Your task to perform on an android device: Open calendar and show me the fourth week of next month Image 0: 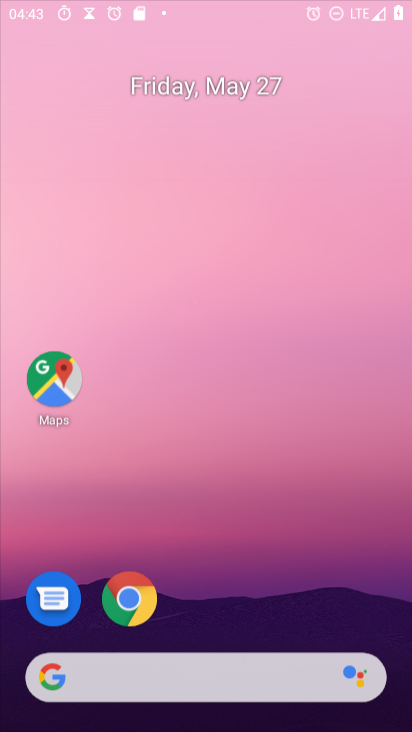
Step 0: drag from (183, 318) to (183, 221)
Your task to perform on an android device: Open calendar and show me the fourth week of next month Image 1: 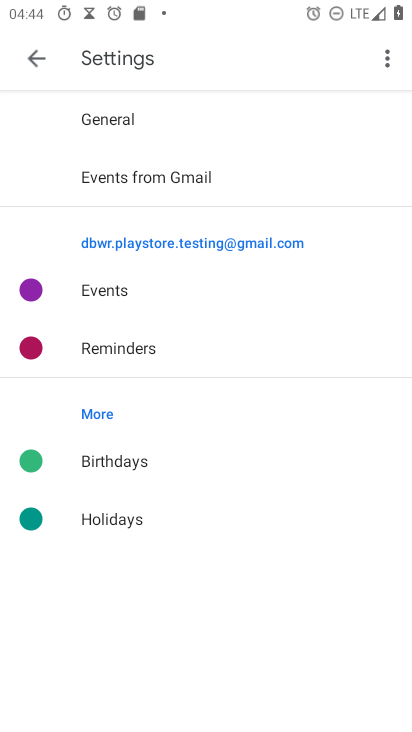
Step 1: press home button
Your task to perform on an android device: Open calendar and show me the fourth week of next month Image 2: 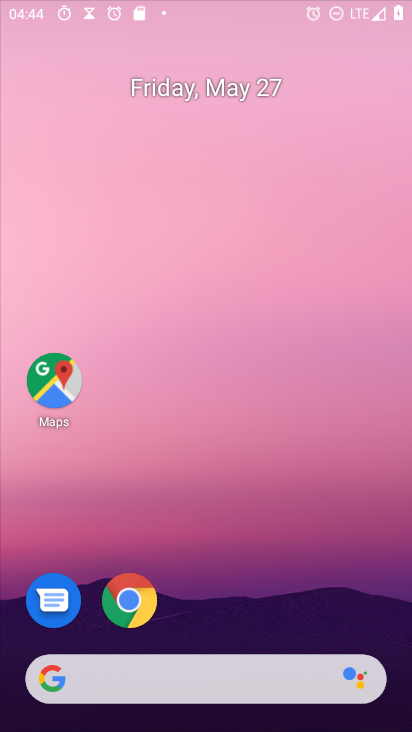
Step 2: drag from (218, 704) to (219, 167)
Your task to perform on an android device: Open calendar and show me the fourth week of next month Image 3: 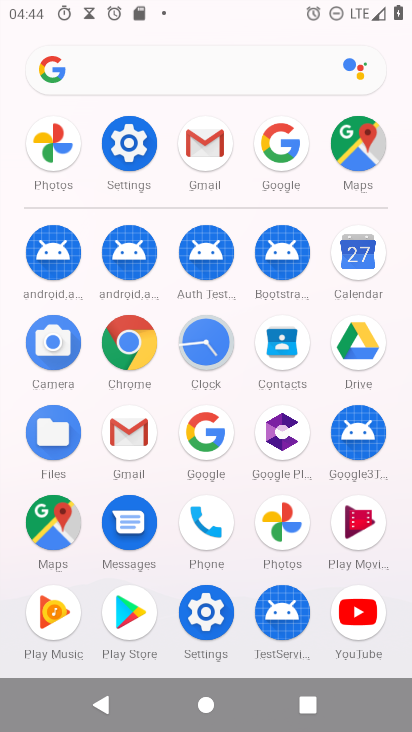
Step 3: click (132, 623)
Your task to perform on an android device: Open calendar and show me the fourth week of next month Image 4: 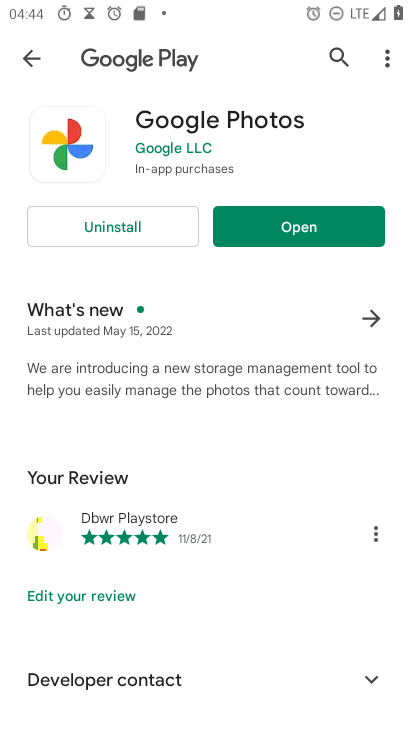
Step 4: click (29, 57)
Your task to perform on an android device: Open calendar and show me the fourth week of next month Image 5: 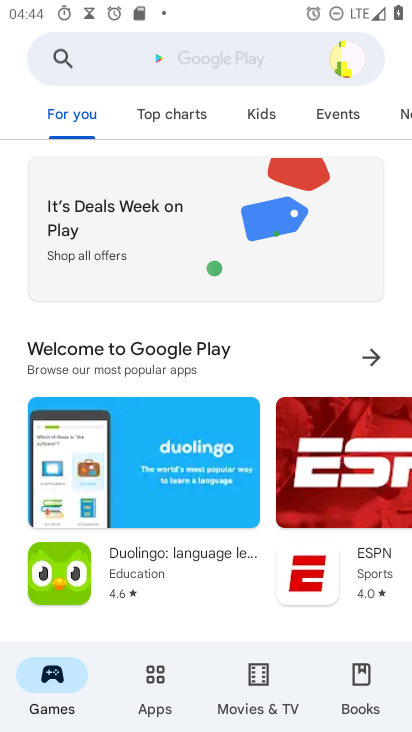
Step 5: press home button
Your task to perform on an android device: Open calendar and show me the fourth week of next month Image 6: 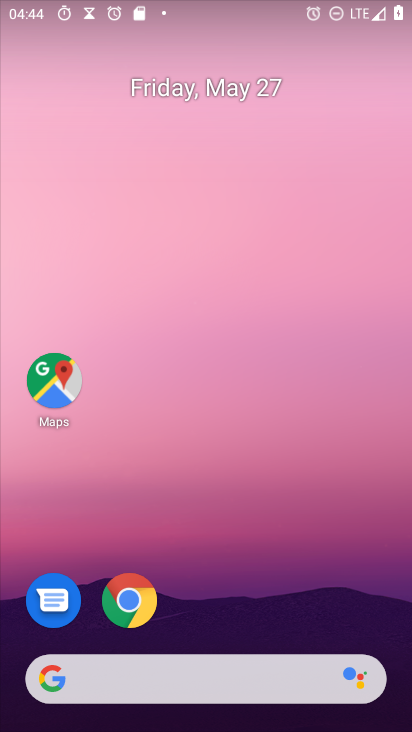
Step 6: drag from (195, 726) to (205, 312)
Your task to perform on an android device: Open calendar and show me the fourth week of next month Image 7: 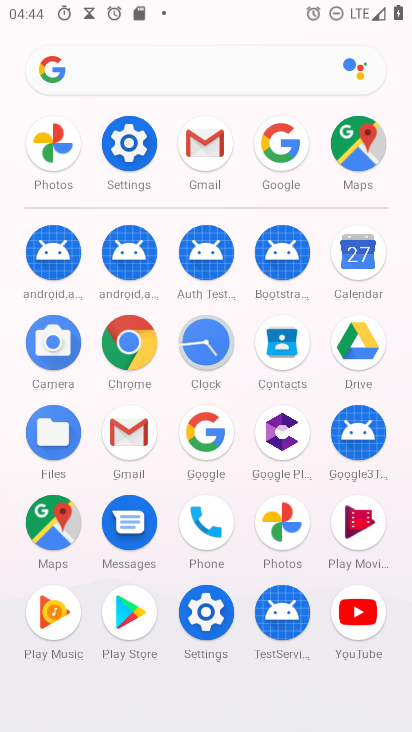
Step 7: click (363, 254)
Your task to perform on an android device: Open calendar and show me the fourth week of next month Image 8: 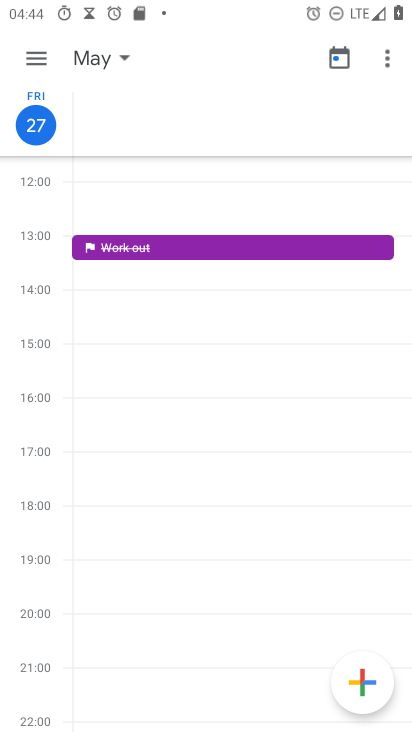
Step 8: click (102, 52)
Your task to perform on an android device: Open calendar and show me the fourth week of next month Image 9: 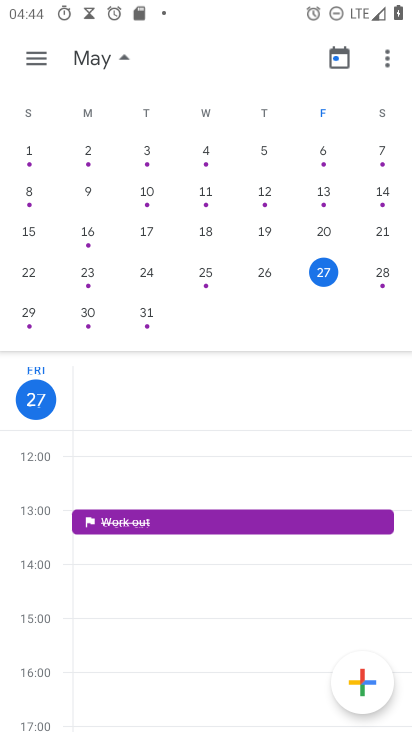
Step 9: drag from (365, 243) to (35, 234)
Your task to perform on an android device: Open calendar and show me the fourth week of next month Image 10: 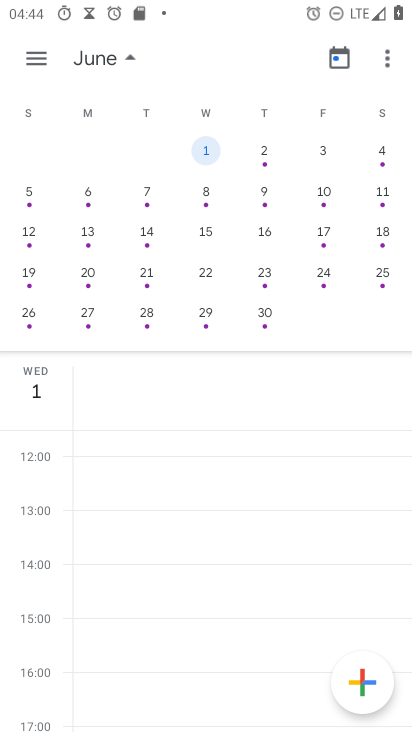
Step 10: click (87, 313)
Your task to perform on an android device: Open calendar and show me the fourth week of next month Image 11: 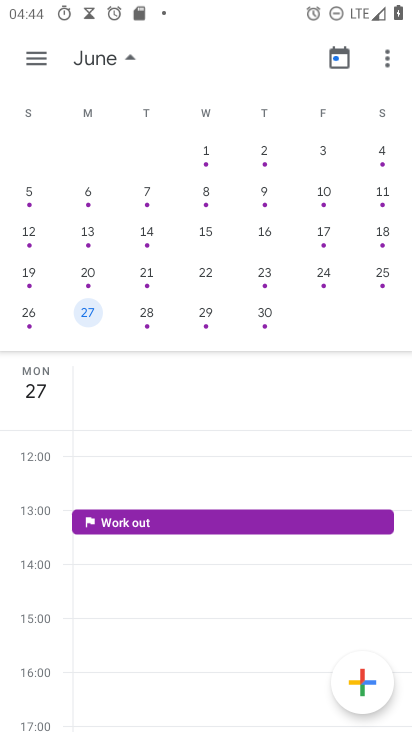
Step 11: click (34, 49)
Your task to perform on an android device: Open calendar and show me the fourth week of next month Image 12: 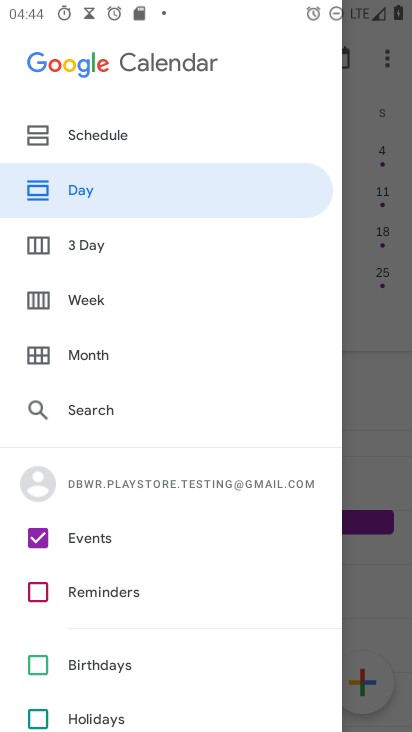
Step 12: click (84, 298)
Your task to perform on an android device: Open calendar and show me the fourth week of next month Image 13: 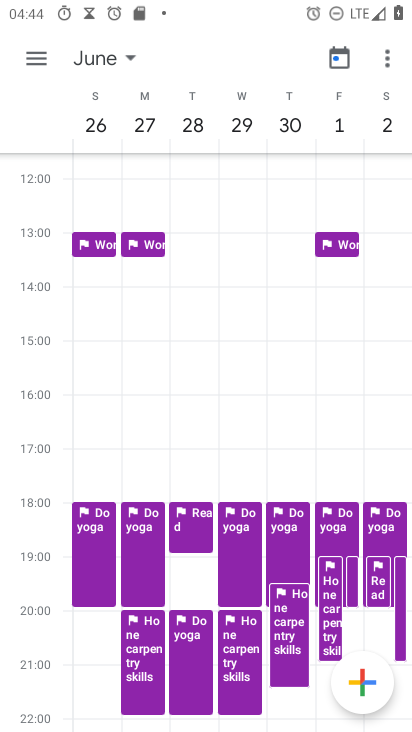
Step 13: task complete